Your task to perform on an android device: open app "Messenger Lite" Image 0: 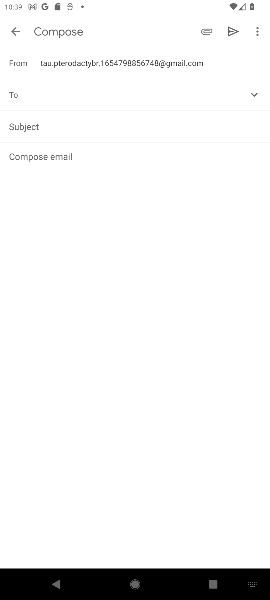
Step 0: task complete